Your task to perform on an android device: Empty the shopping cart on amazon. Search for razer blade on amazon, select the first entry, and add it to the cart. Image 0: 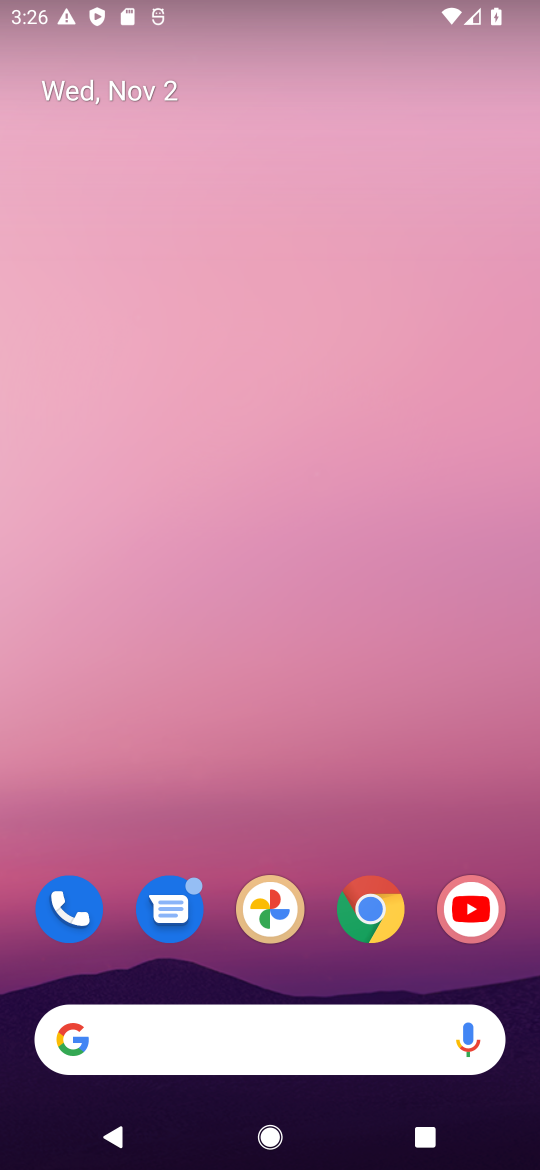
Step 0: click (366, 901)
Your task to perform on an android device: Empty the shopping cart on amazon. Search for razer blade on amazon, select the first entry, and add it to the cart. Image 1: 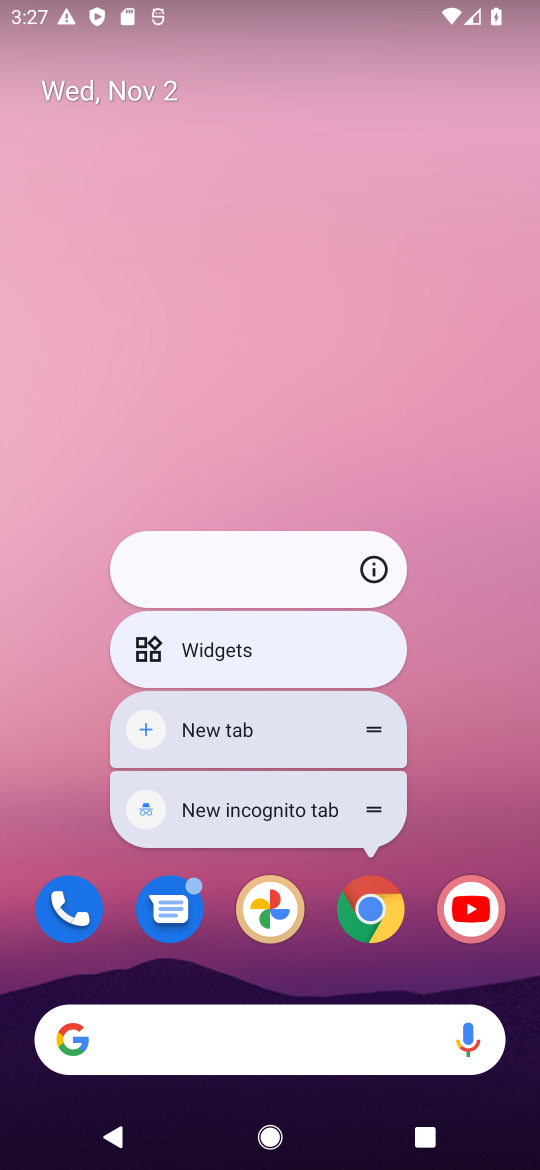
Step 1: click (371, 916)
Your task to perform on an android device: Empty the shopping cart on amazon. Search for razer blade on amazon, select the first entry, and add it to the cart. Image 2: 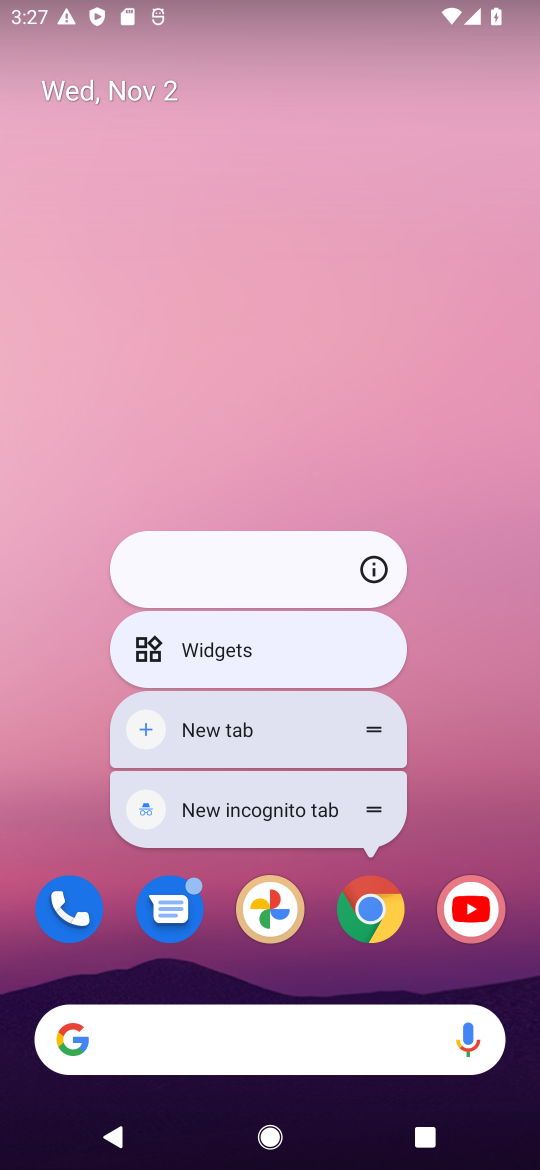
Step 2: click (371, 912)
Your task to perform on an android device: Empty the shopping cart on amazon. Search for razer blade on amazon, select the first entry, and add it to the cart. Image 3: 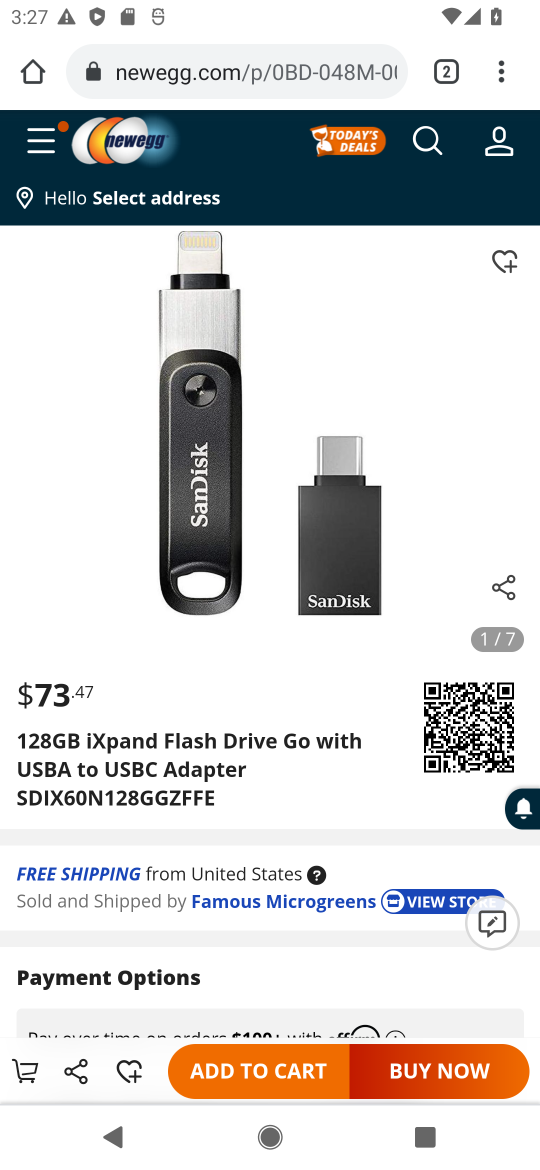
Step 3: drag from (498, 68) to (330, 141)
Your task to perform on an android device: Empty the shopping cart on amazon. Search for razer blade on amazon, select the first entry, and add it to the cart. Image 4: 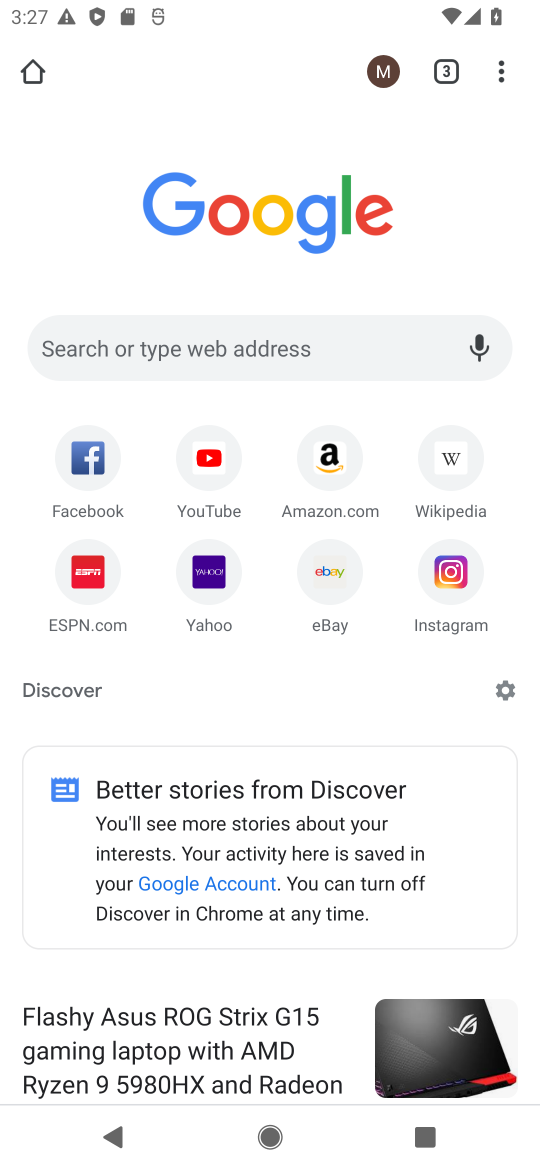
Step 4: click (322, 467)
Your task to perform on an android device: Empty the shopping cart on amazon. Search for razer blade on amazon, select the first entry, and add it to the cart. Image 5: 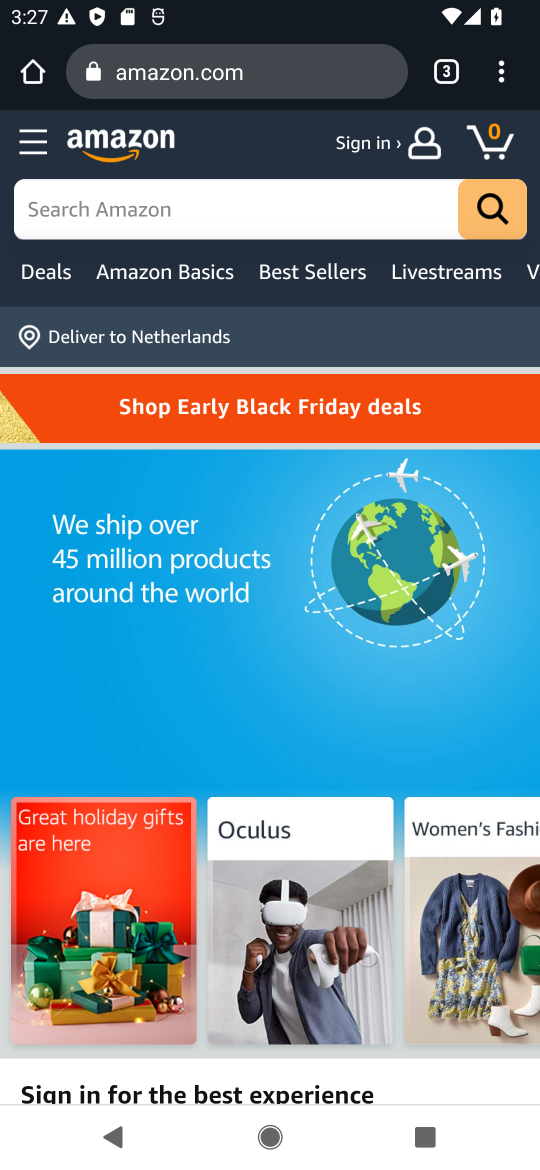
Step 5: click (186, 220)
Your task to perform on an android device: Empty the shopping cart on amazon. Search for razer blade on amazon, select the first entry, and add it to the cart. Image 6: 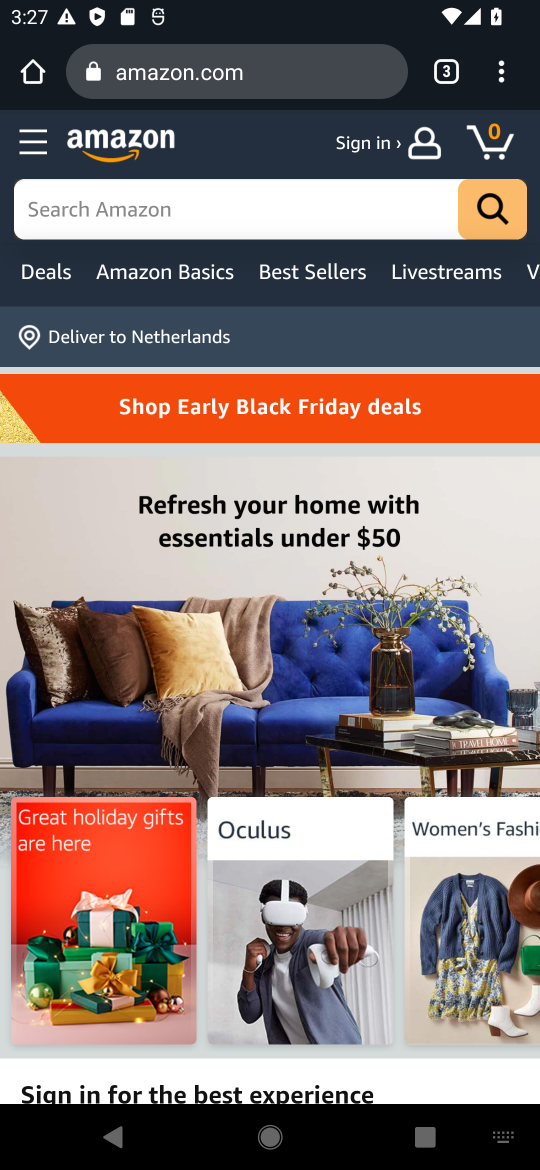
Step 6: type " razer blade"
Your task to perform on an android device: Empty the shopping cart on amazon. Search for razer blade on amazon, select the first entry, and add it to the cart. Image 7: 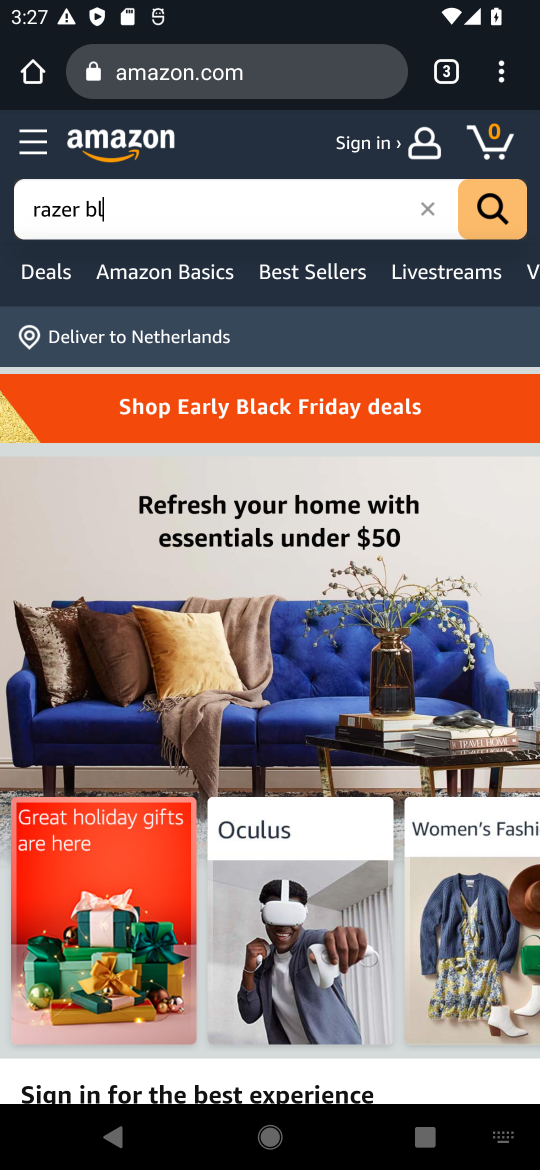
Step 7: press enter
Your task to perform on an android device: Empty the shopping cart on amazon. Search for razer blade on amazon, select the first entry, and add it to the cart. Image 8: 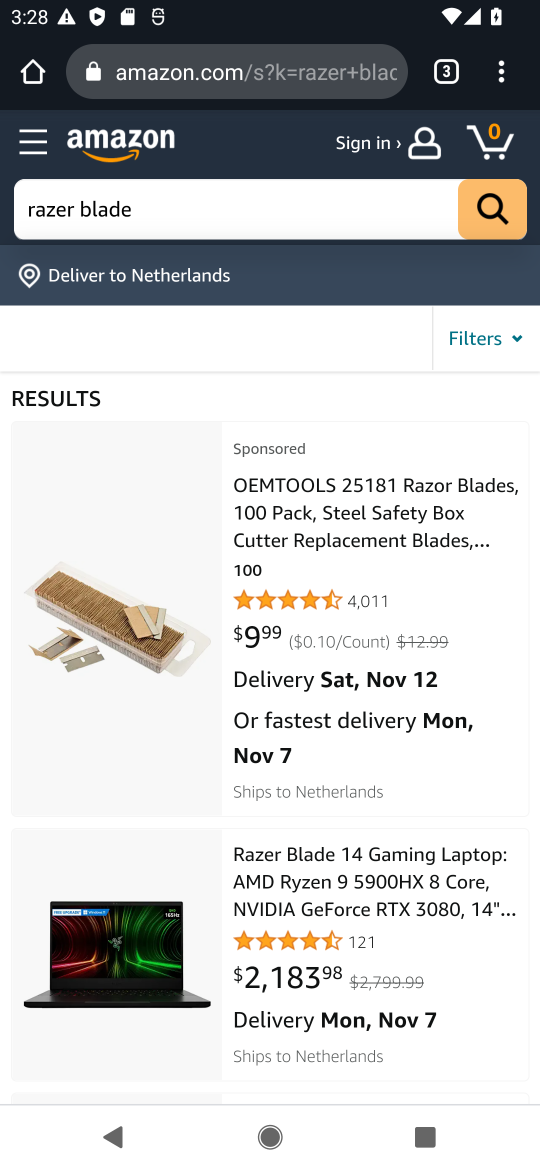
Step 8: click (444, 553)
Your task to perform on an android device: Empty the shopping cart on amazon. Search for razer blade on amazon, select the first entry, and add it to the cart. Image 9: 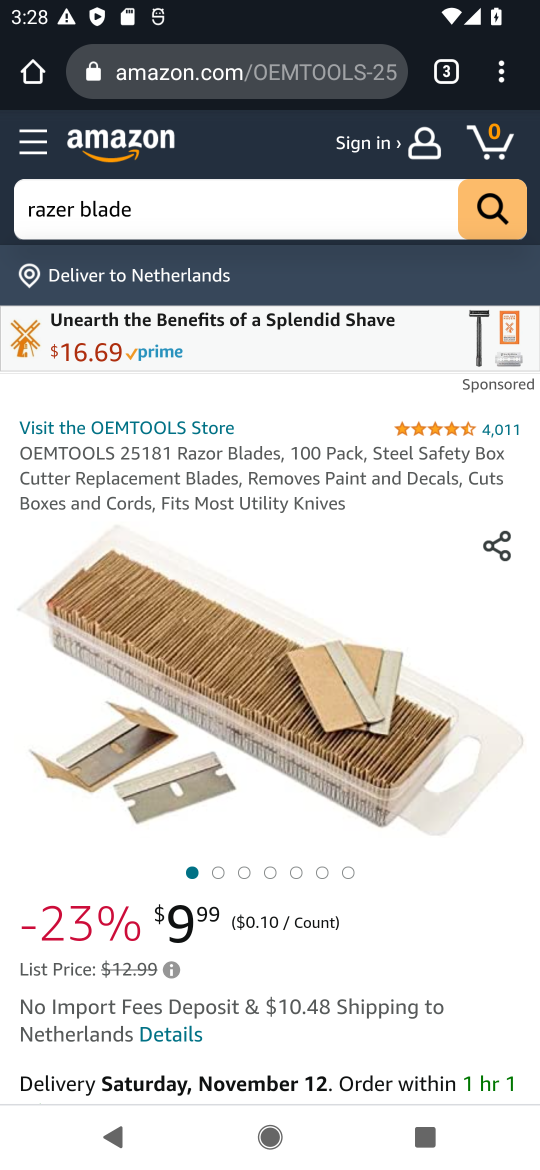
Step 9: drag from (239, 985) to (454, 423)
Your task to perform on an android device: Empty the shopping cart on amazon. Search for razer blade on amazon, select the first entry, and add it to the cart. Image 10: 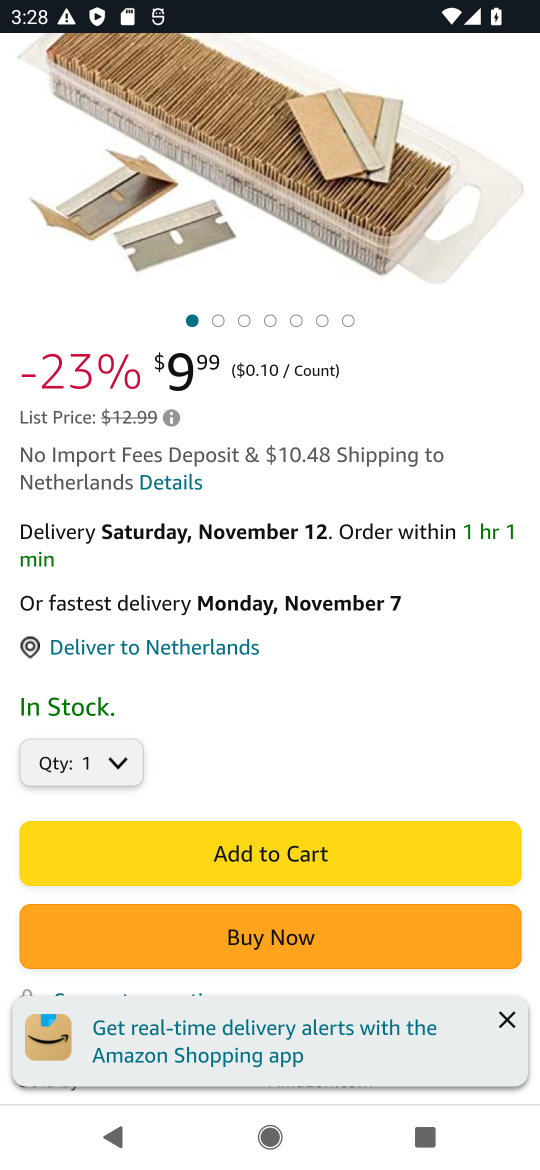
Step 10: click (284, 855)
Your task to perform on an android device: Empty the shopping cart on amazon. Search for razer blade on amazon, select the first entry, and add it to the cart. Image 11: 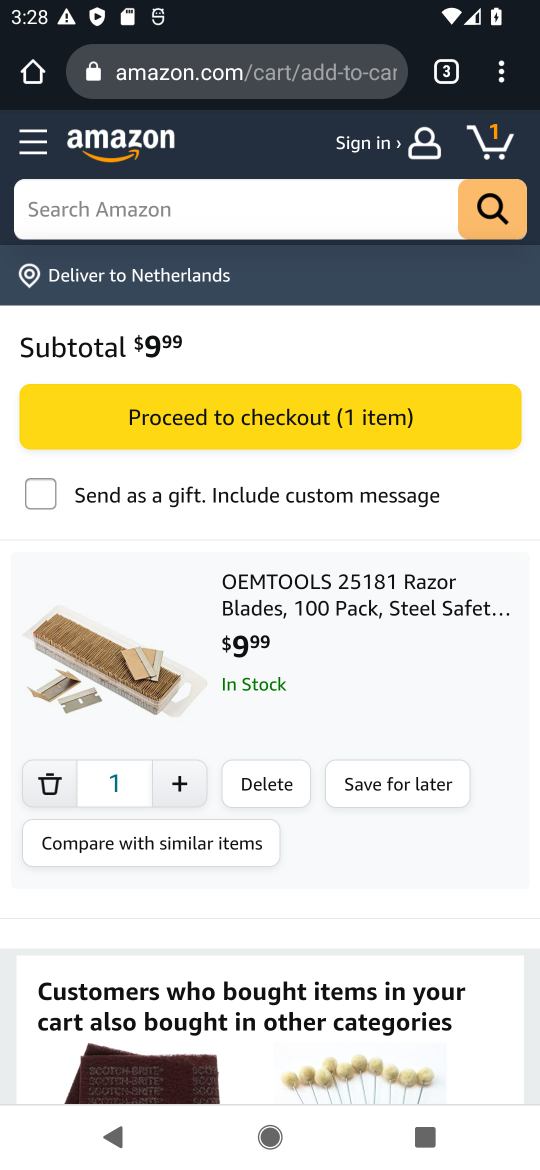
Step 11: task complete